Your task to perform on an android device: Open sound settings Image 0: 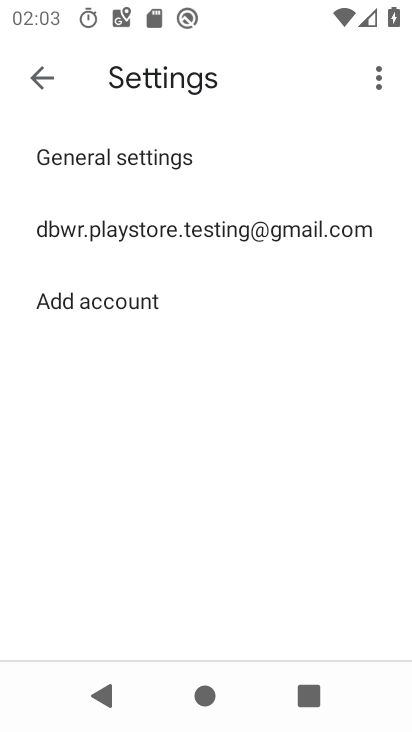
Step 0: press home button
Your task to perform on an android device: Open sound settings Image 1: 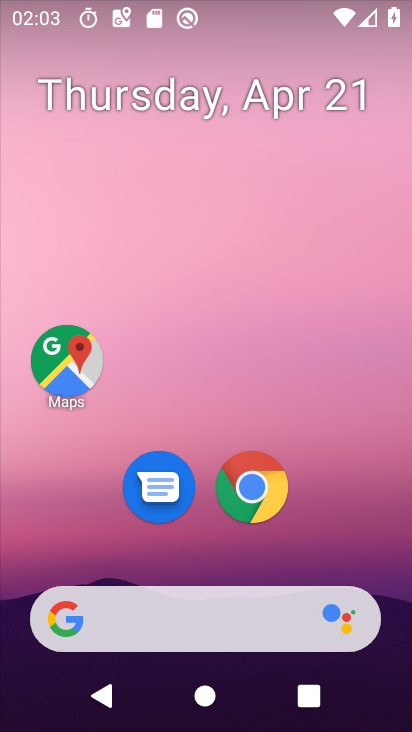
Step 1: drag from (187, 540) to (362, 84)
Your task to perform on an android device: Open sound settings Image 2: 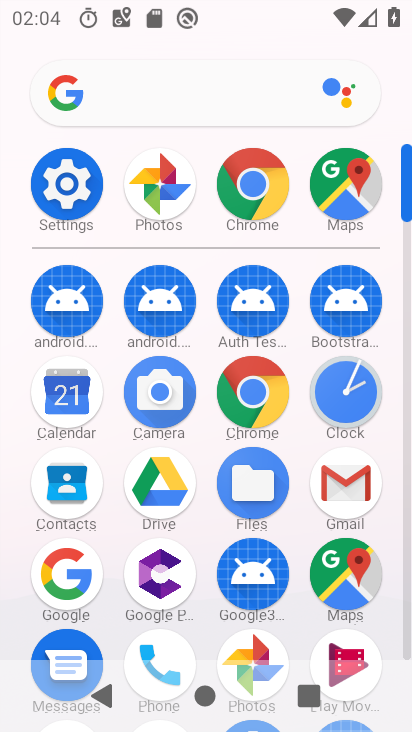
Step 2: click (62, 197)
Your task to perform on an android device: Open sound settings Image 3: 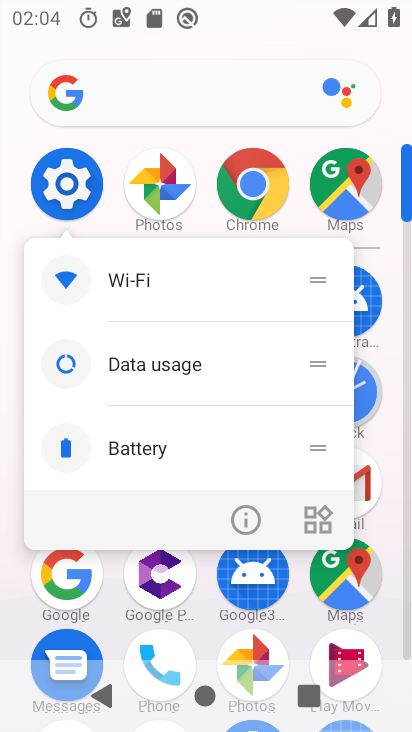
Step 3: click (254, 519)
Your task to perform on an android device: Open sound settings Image 4: 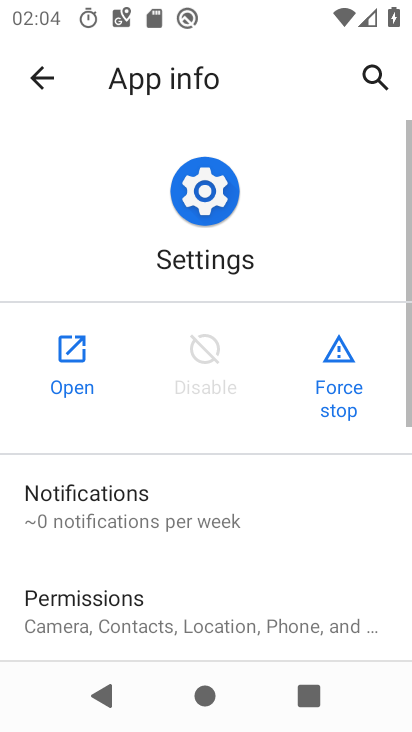
Step 4: click (68, 376)
Your task to perform on an android device: Open sound settings Image 5: 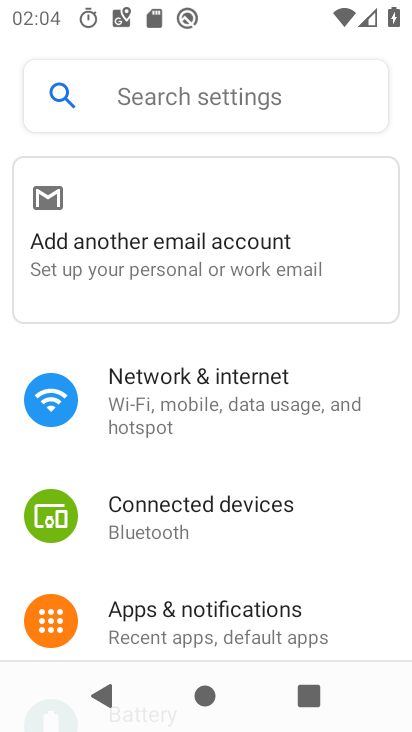
Step 5: drag from (192, 524) to (259, 246)
Your task to perform on an android device: Open sound settings Image 6: 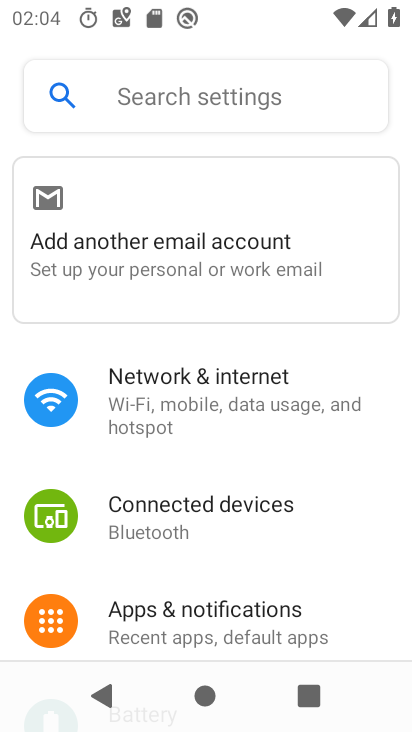
Step 6: drag from (163, 579) to (386, 15)
Your task to perform on an android device: Open sound settings Image 7: 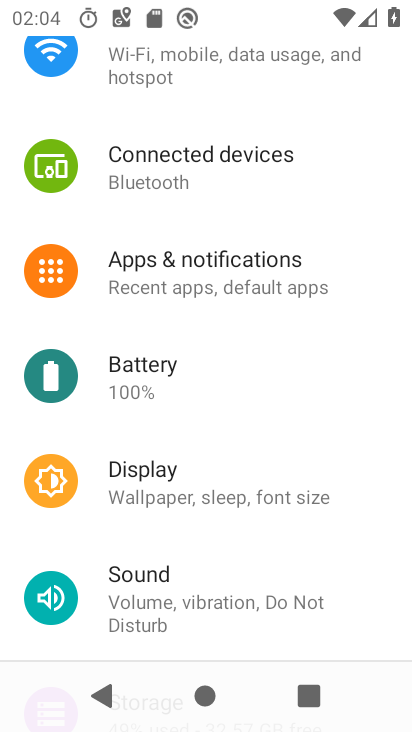
Step 7: drag from (282, 361) to (17, 171)
Your task to perform on an android device: Open sound settings Image 8: 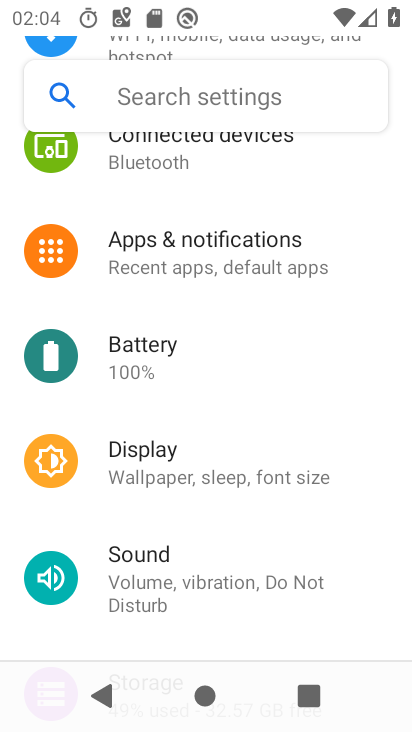
Step 8: drag from (142, 478) to (178, 95)
Your task to perform on an android device: Open sound settings Image 9: 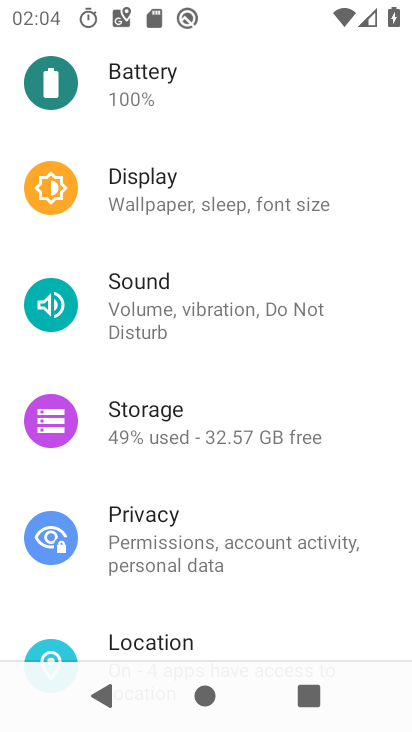
Step 9: click (191, 290)
Your task to perform on an android device: Open sound settings Image 10: 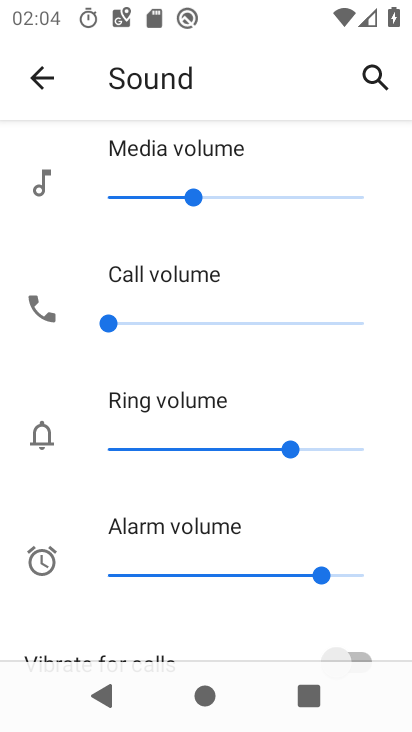
Step 10: task complete